Your task to perform on an android device: Go to Android settings Image 0: 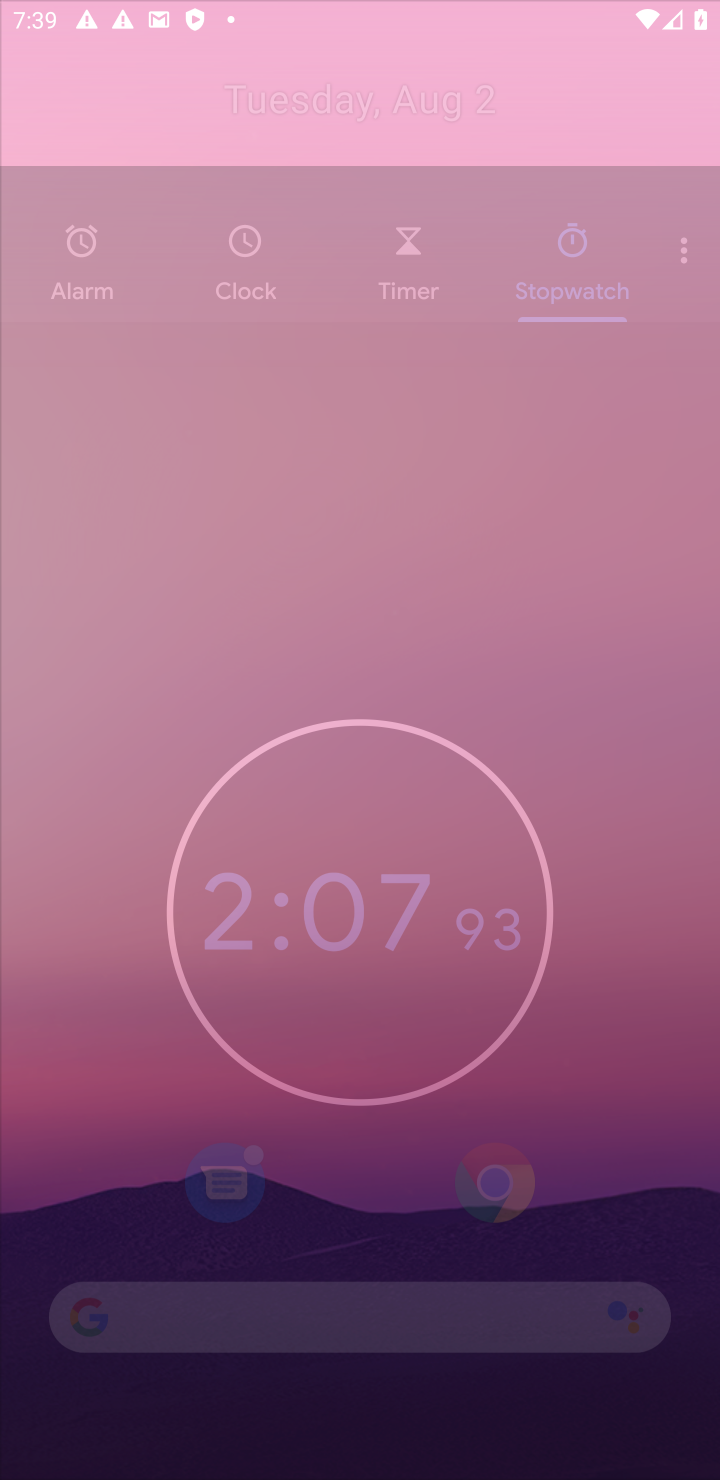
Step 0: click (545, 407)
Your task to perform on an android device: Go to Android settings Image 1: 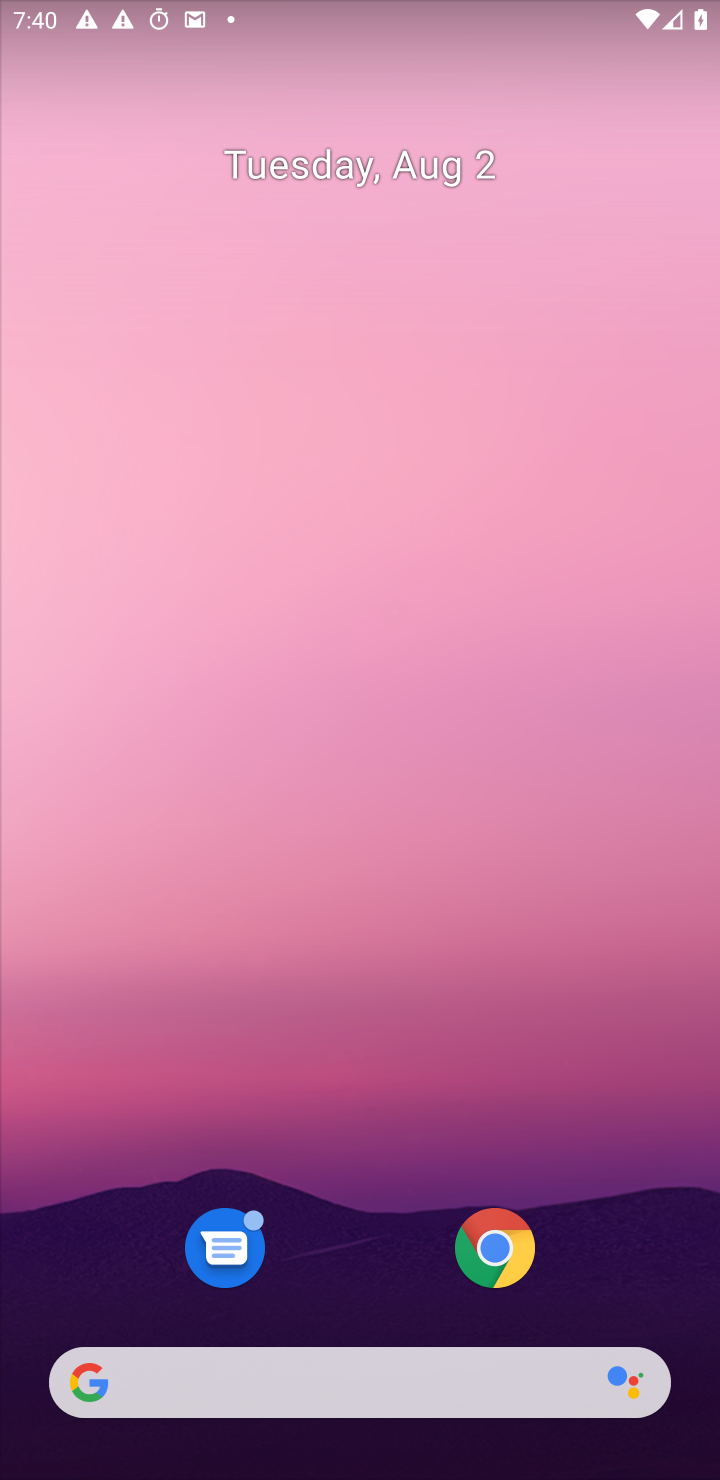
Step 1: drag from (362, 1077) to (367, 108)
Your task to perform on an android device: Go to Android settings Image 2: 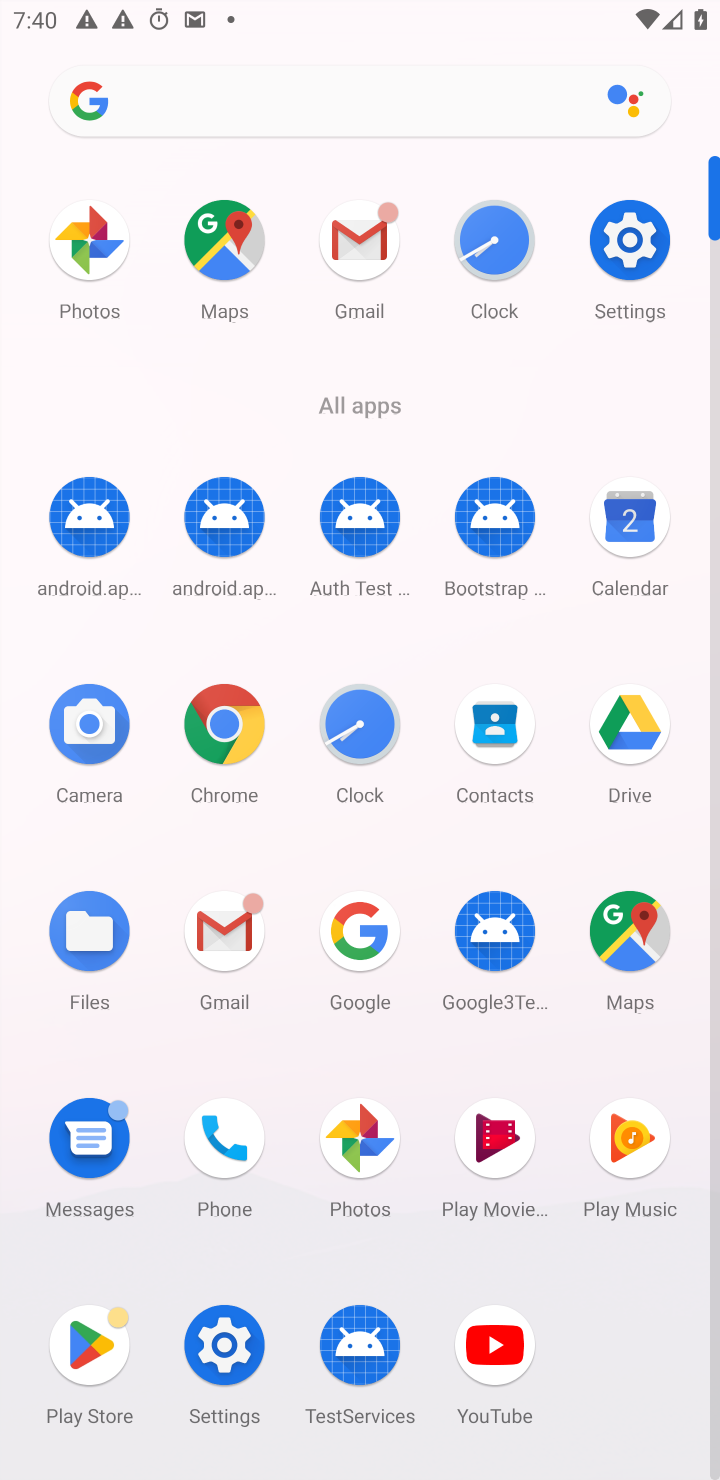
Step 2: click (203, 1326)
Your task to perform on an android device: Go to Android settings Image 3: 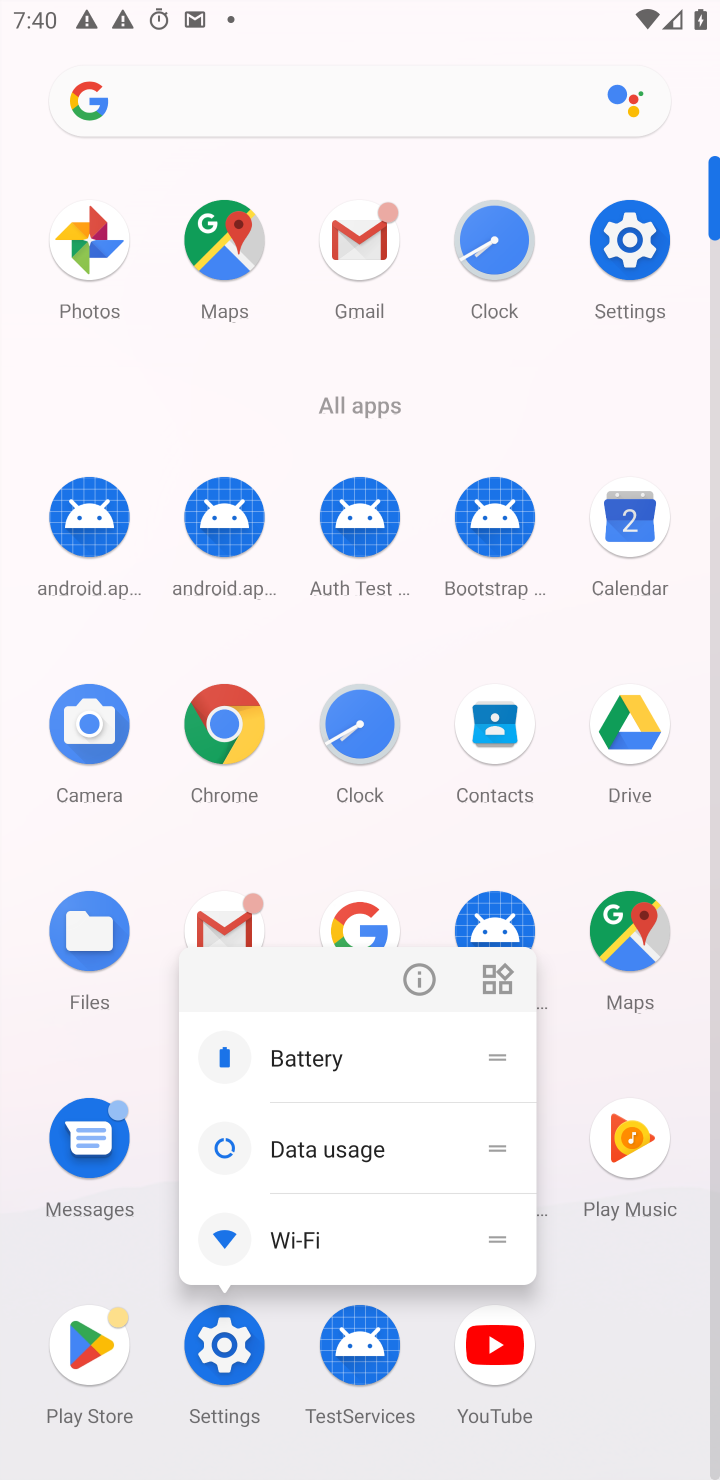
Step 3: click (420, 981)
Your task to perform on an android device: Go to Android settings Image 4: 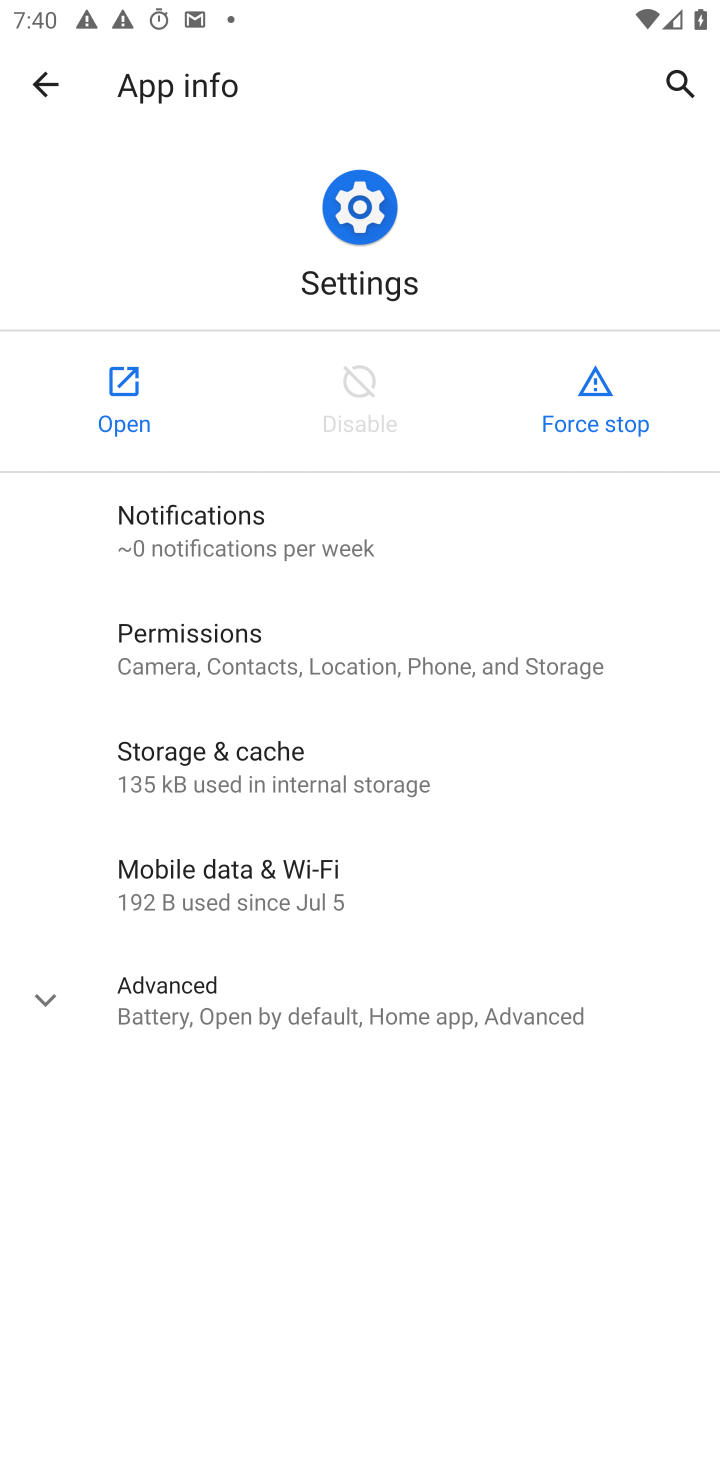
Step 4: click (129, 381)
Your task to perform on an android device: Go to Android settings Image 5: 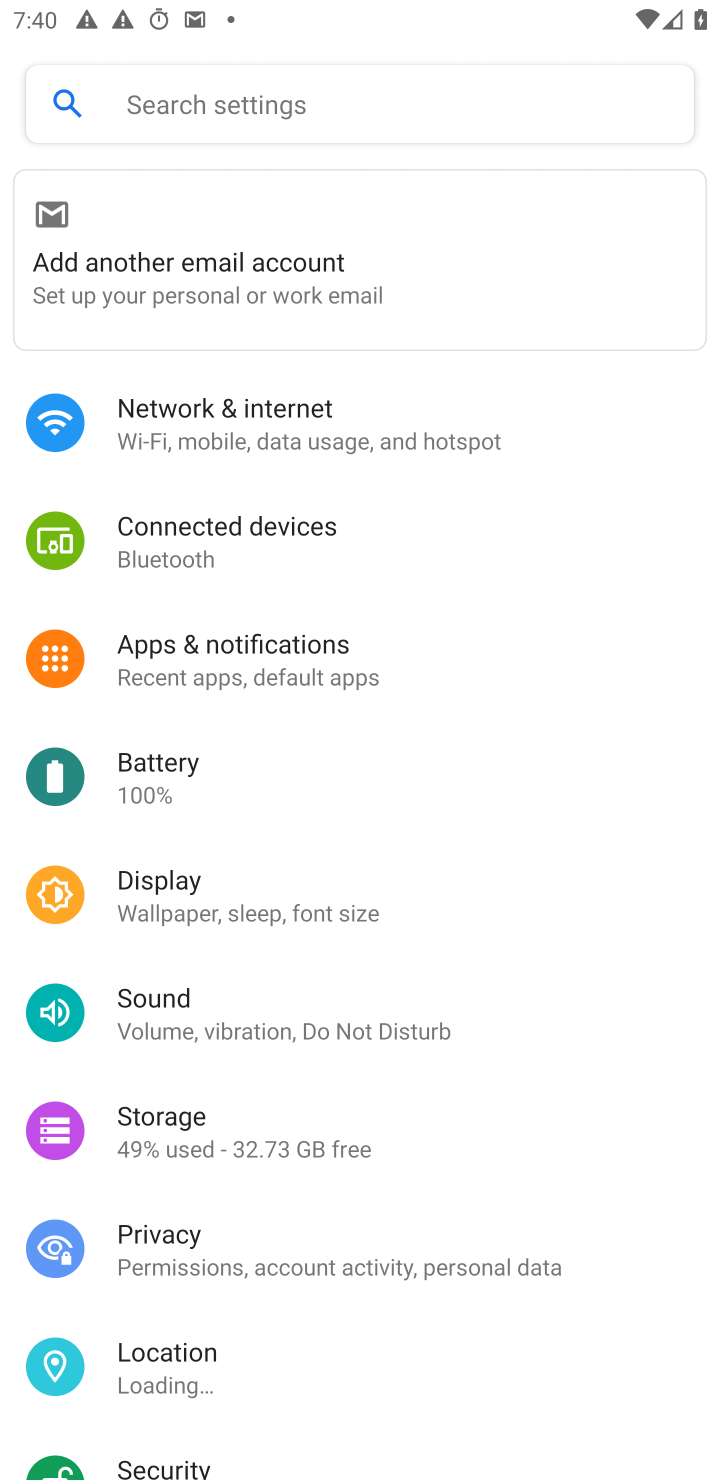
Step 5: drag from (336, 1303) to (412, 320)
Your task to perform on an android device: Go to Android settings Image 6: 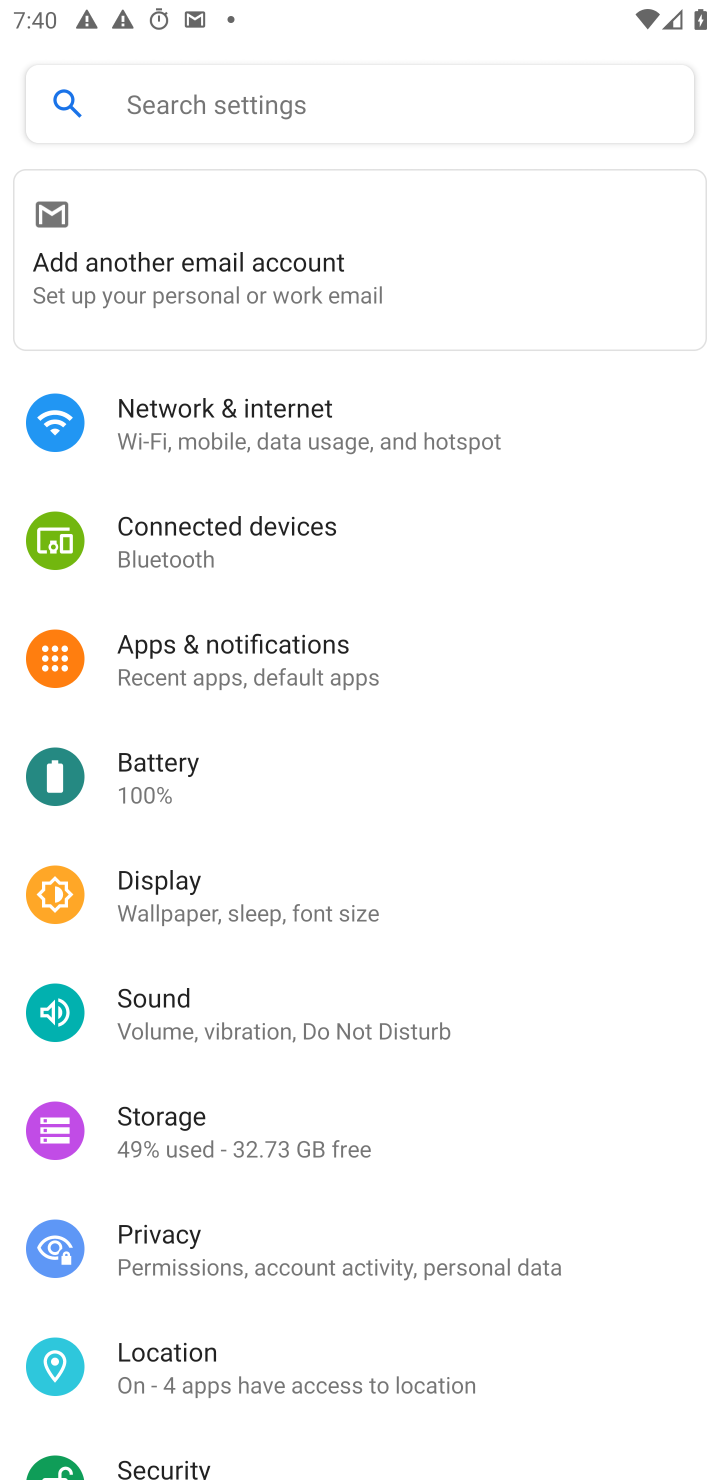
Step 6: drag from (253, 1373) to (401, 414)
Your task to perform on an android device: Go to Android settings Image 7: 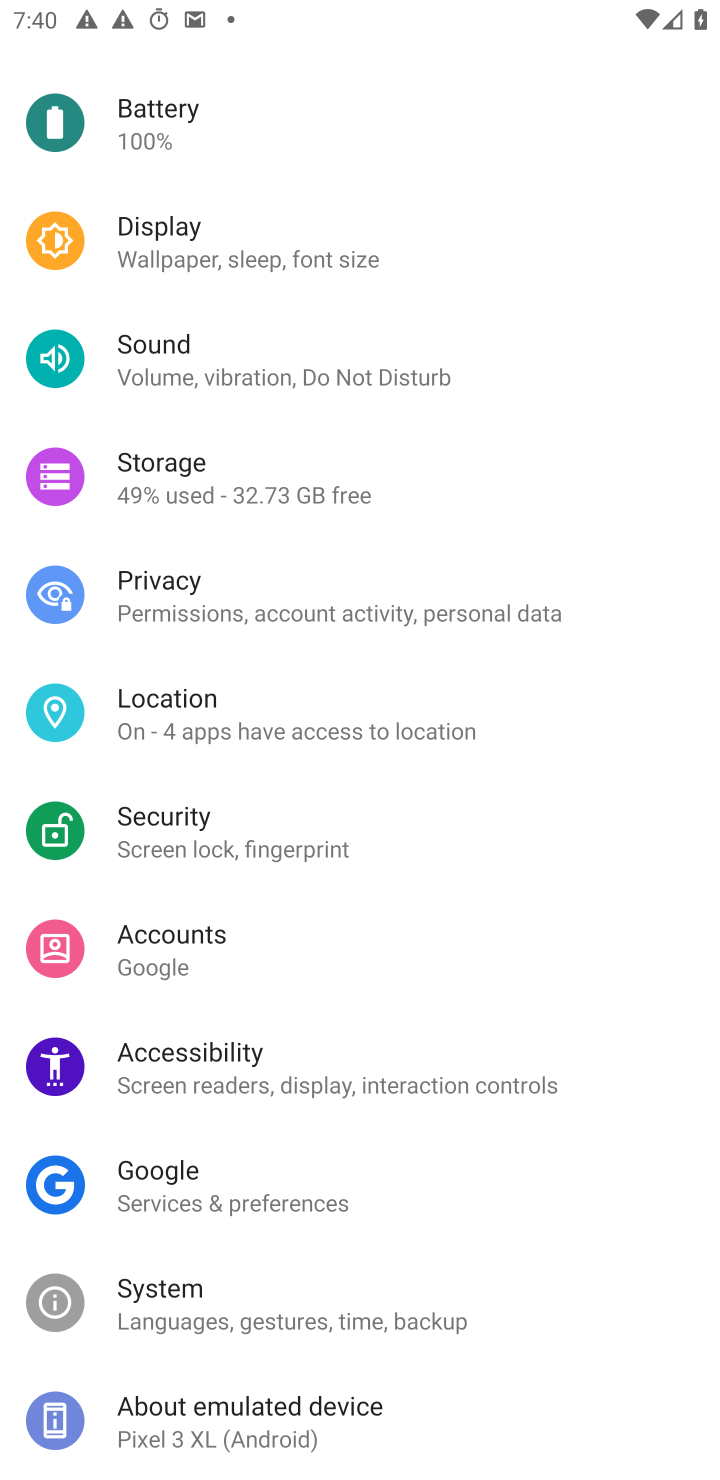
Step 7: drag from (335, 1316) to (355, 431)
Your task to perform on an android device: Go to Android settings Image 8: 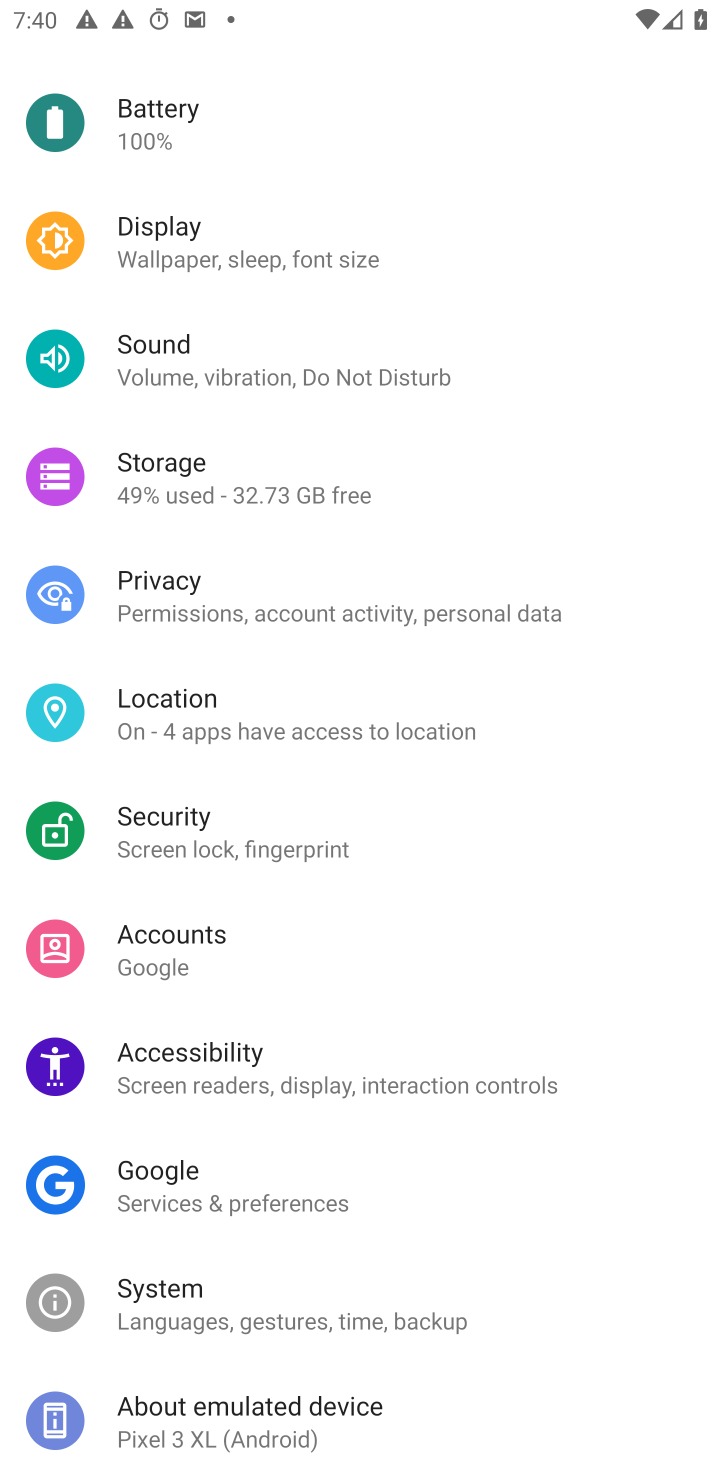
Step 8: drag from (316, 1317) to (398, 767)
Your task to perform on an android device: Go to Android settings Image 9: 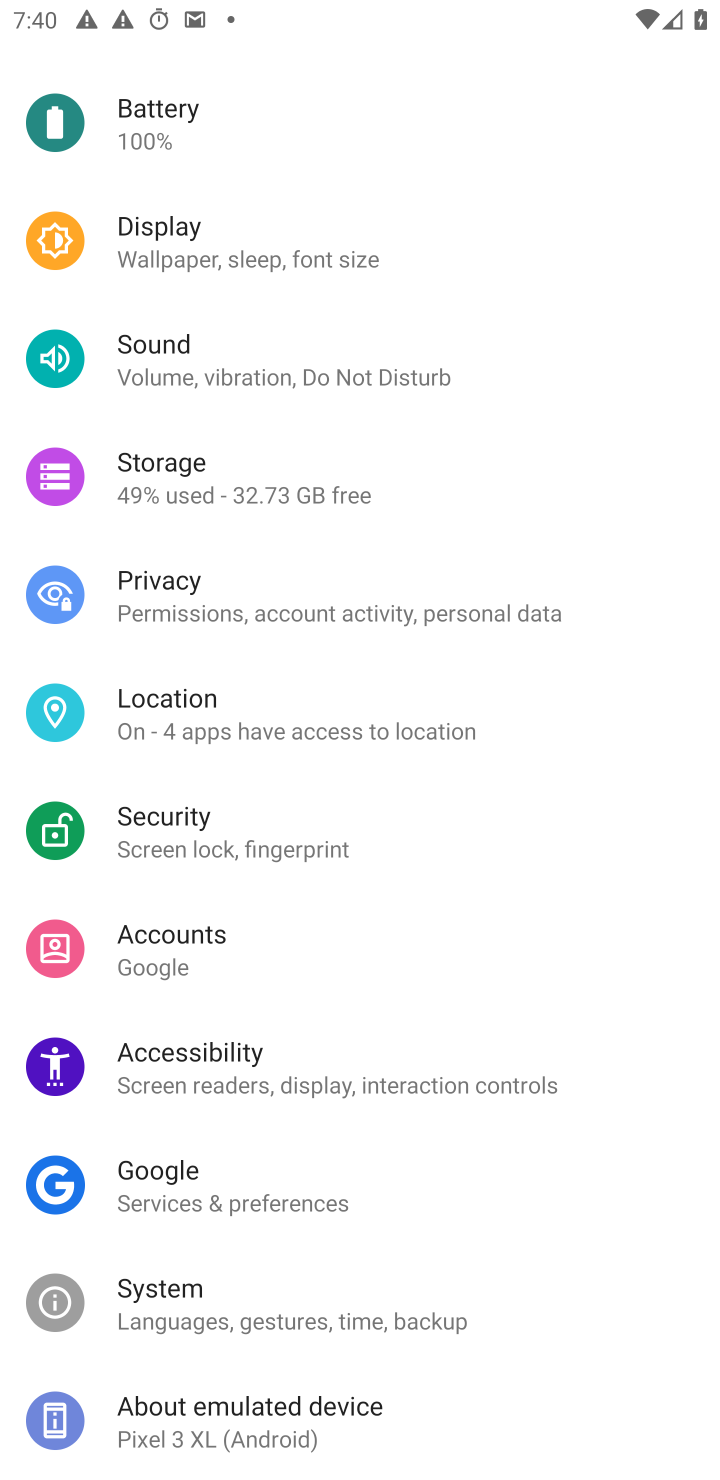
Step 9: click (266, 1430)
Your task to perform on an android device: Go to Android settings Image 10: 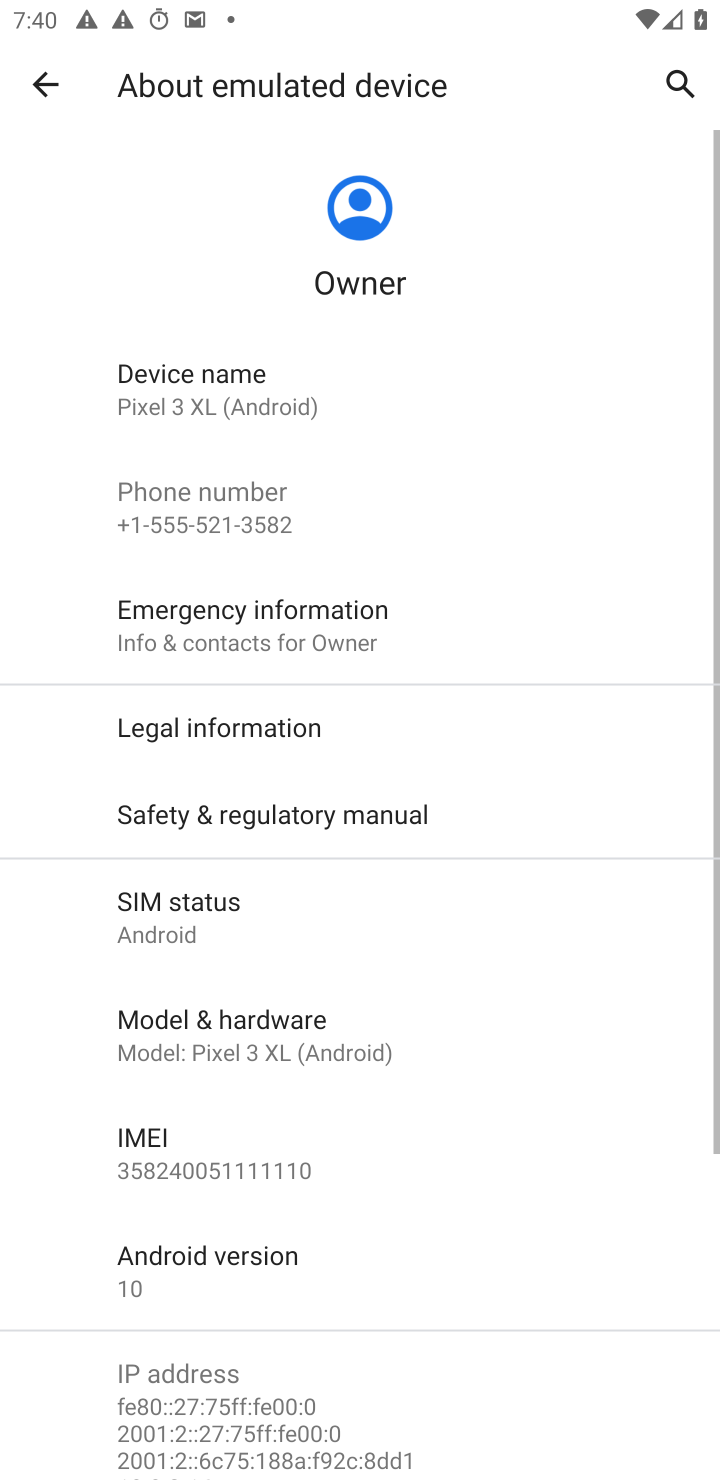
Step 10: drag from (378, 1348) to (384, 385)
Your task to perform on an android device: Go to Android settings Image 11: 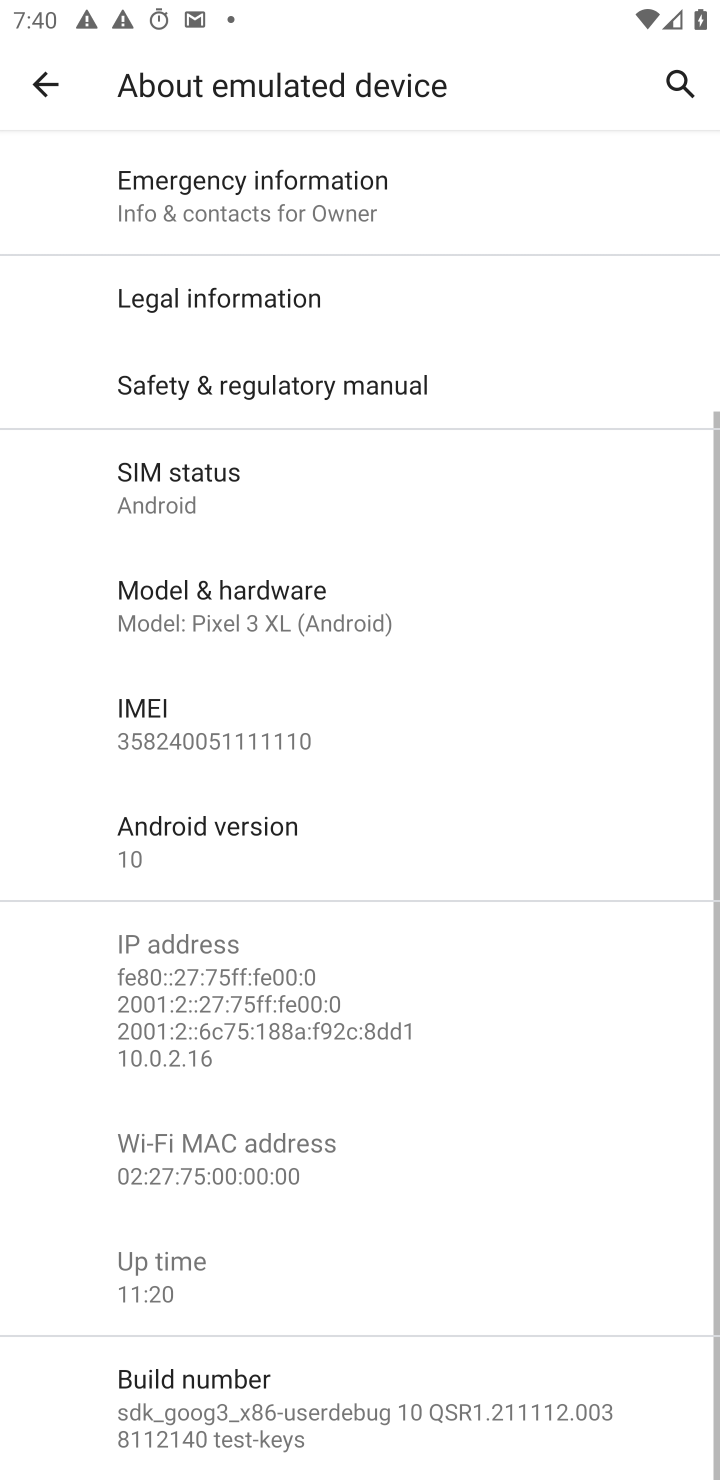
Step 11: drag from (376, 499) to (412, 1469)
Your task to perform on an android device: Go to Android settings Image 12: 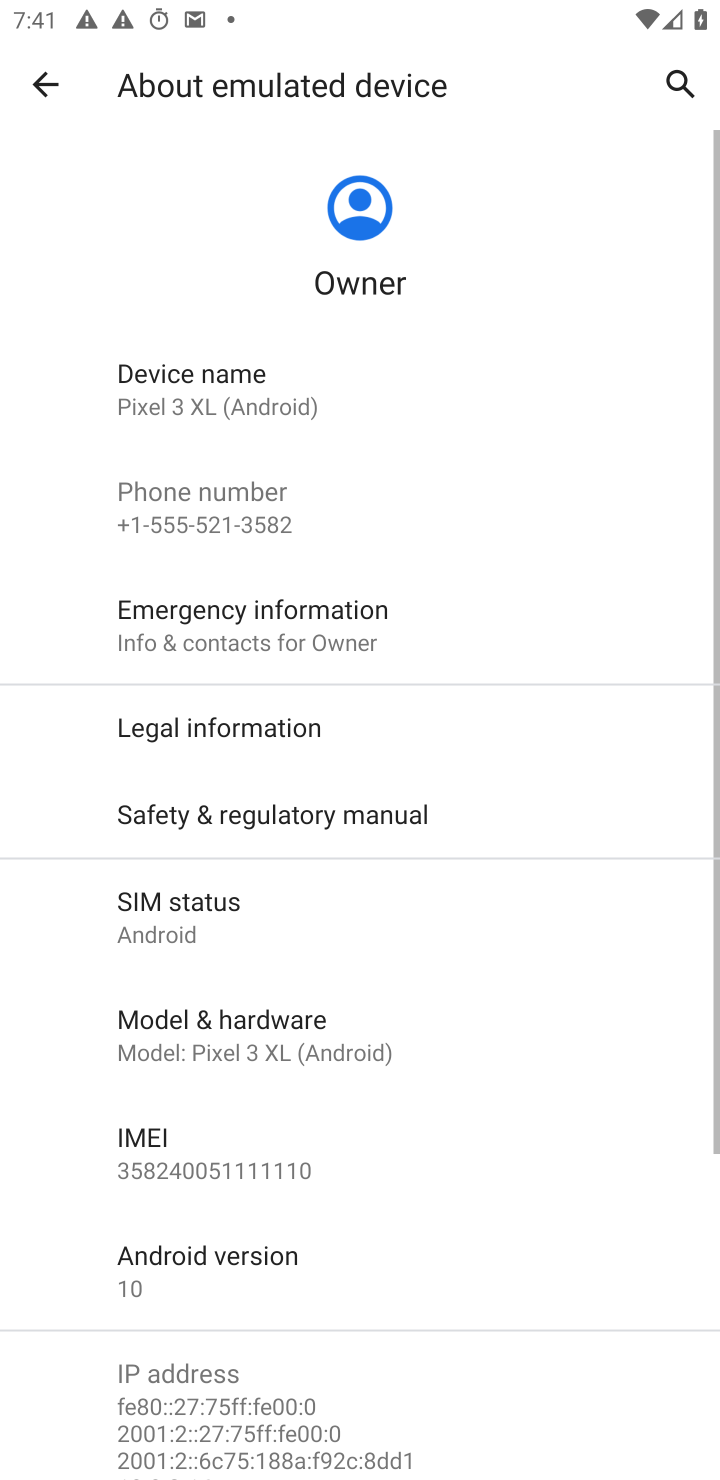
Step 12: drag from (409, 1224) to (416, 322)
Your task to perform on an android device: Go to Android settings Image 13: 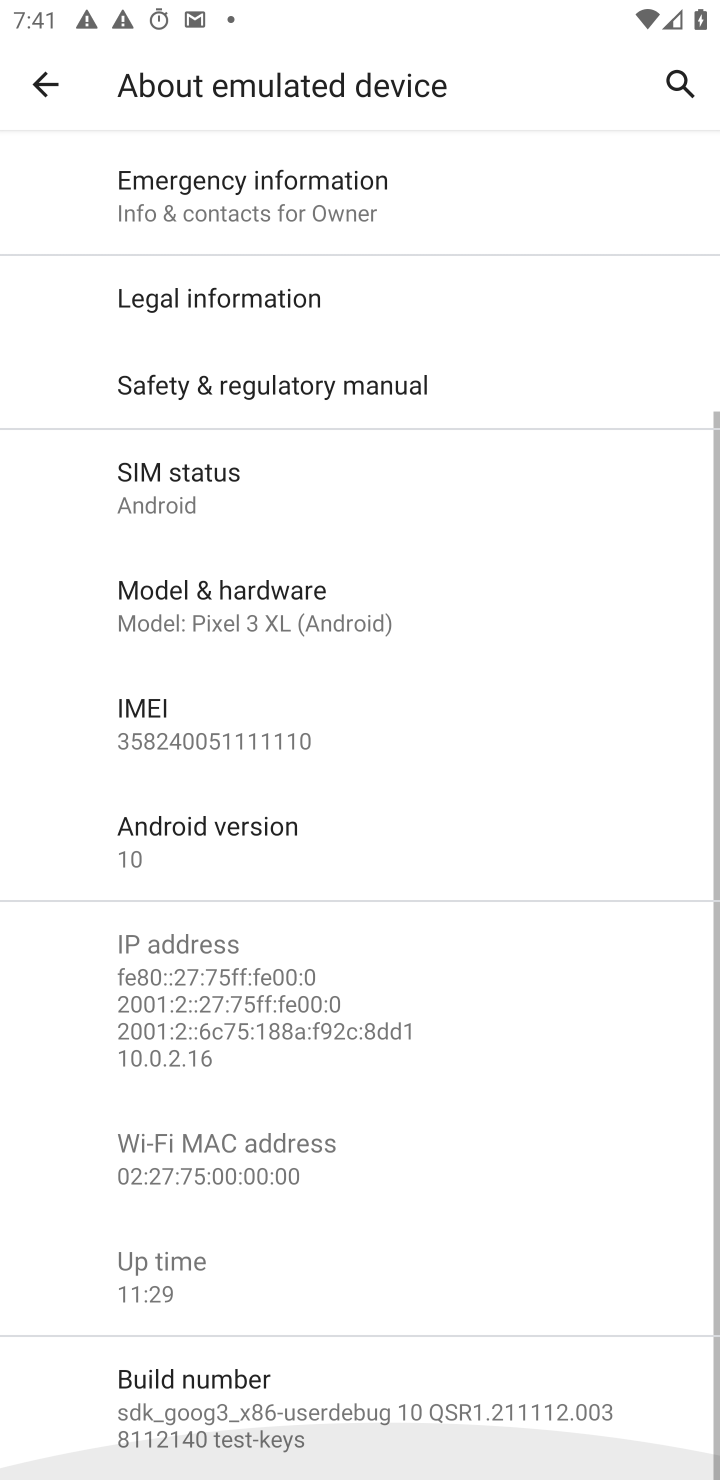
Step 13: drag from (446, 488) to (373, 1476)
Your task to perform on an android device: Go to Android settings Image 14: 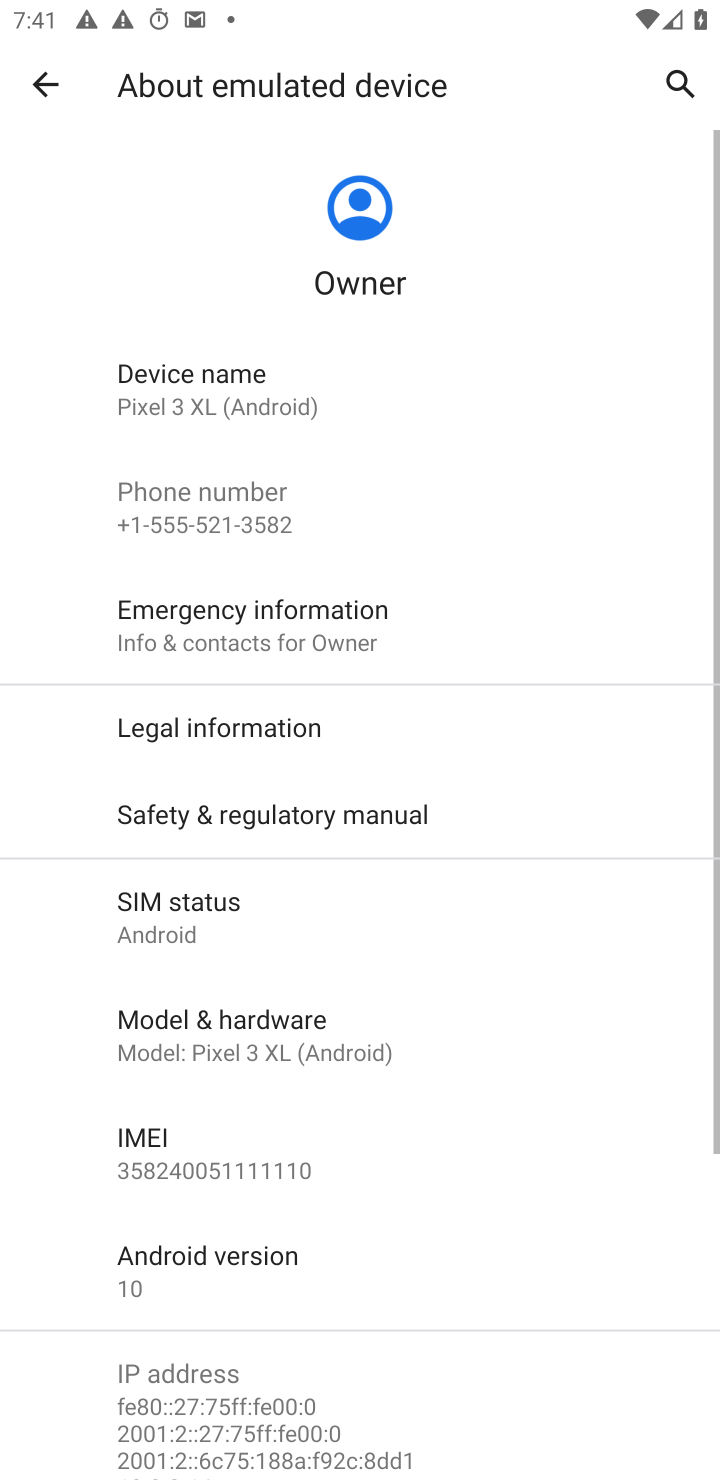
Step 14: click (322, 1279)
Your task to perform on an android device: Go to Android settings Image 15: 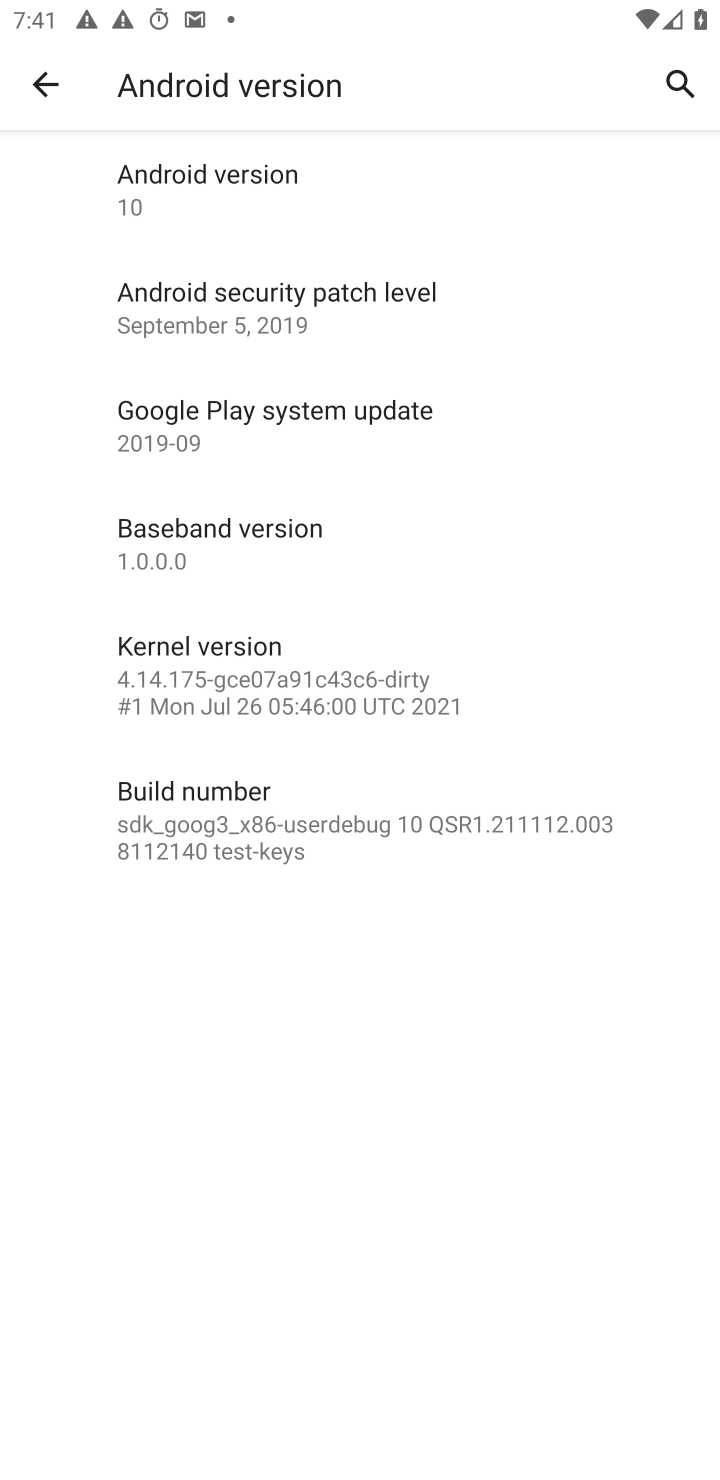
Step 15: task complete